Your task to perform on an android device: Open the phone app and click the voicemail tab. Image 0: 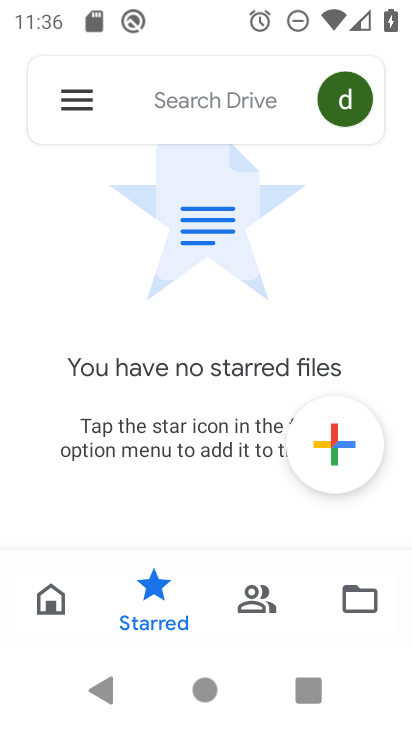
Step 0: press home button
Your task to perform on an android device: Open the phone app and click the voicemail tab. Image 1: 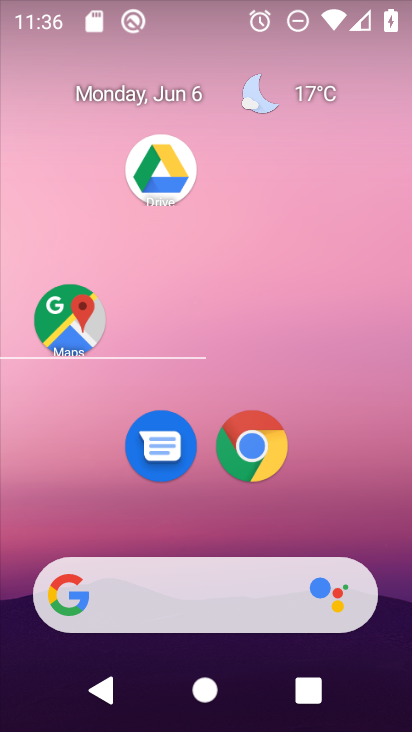
Step 1: drag from (198, 542) to (167, 115)
Your task to perform on an android device: Open the phone app and click the voicemail tab. Image 2: 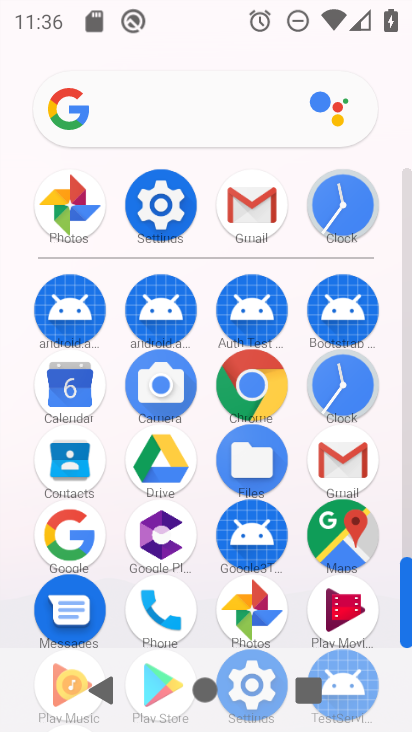
Step 2: click (166, 628)
Your task to perform on an android device: Open the phone app and click the voicemail tab. Image 3: 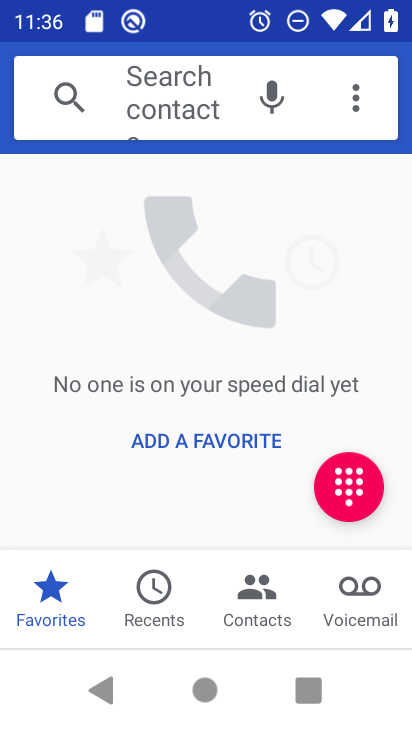
Step 3: click (365, 589)
Your task to perform on an android device: Open the phone app and click the voicemail tab. Image 4: 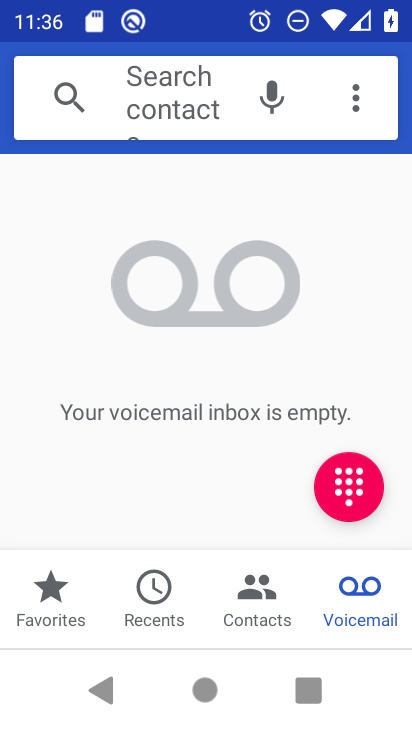
Step 4: task complete